Your task to perform on an android device: Show me popular games on the Play Store Image 0: 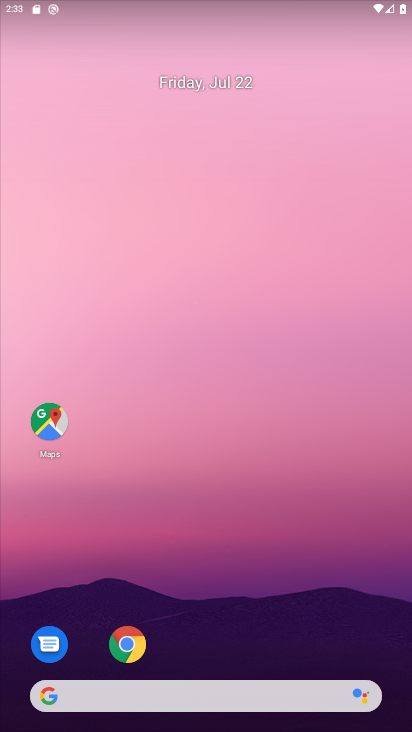
Step 0: drag from (258, 537) to (285, 87)
Your task to perform on an android device: Show me popular games on the Play Store Image 1: 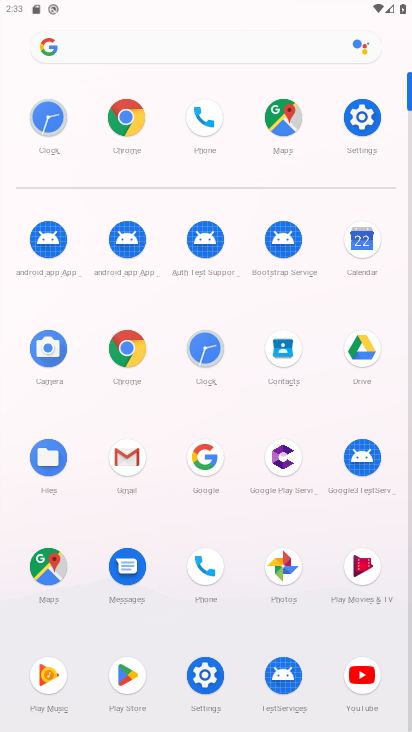
Step 1: click (132, 667)
Your task to perform on an android device: Show me popular games on the Play Store Image 2: 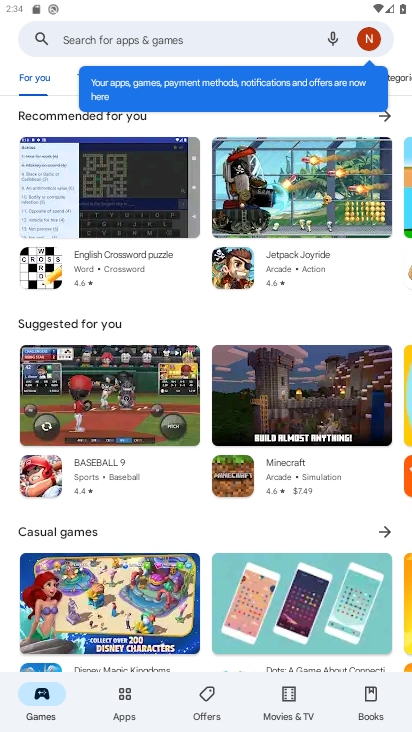
Step 2: task complete